Your task to perform on an android device: Open display settings Image 0: 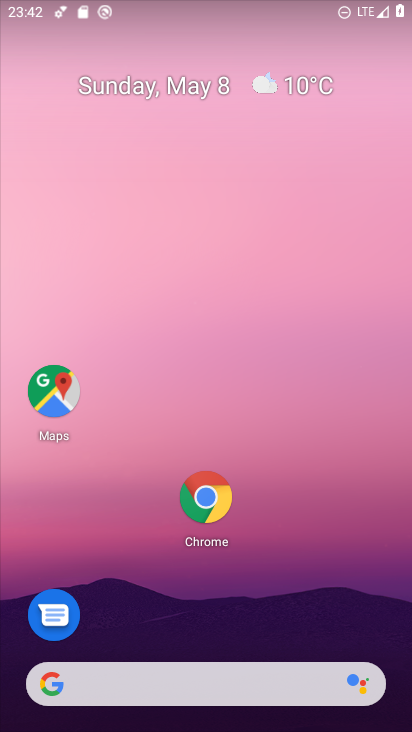
Step 0: click (281, 112)
Your task to perform on an android device: Open display settings Image 1: 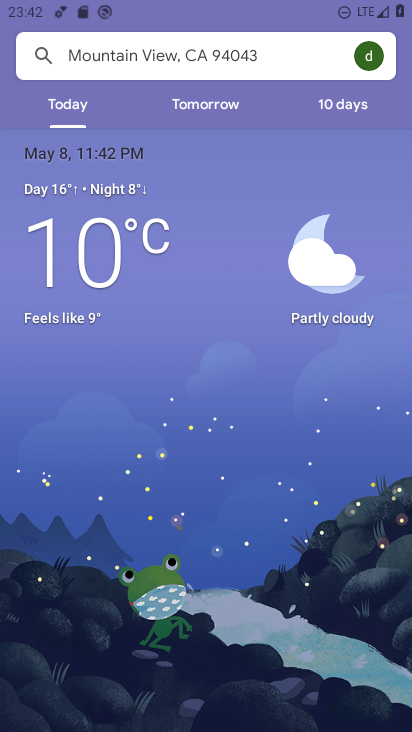
Step 1: press home button
Your task to perform on an android device: Open display settings Image 2: 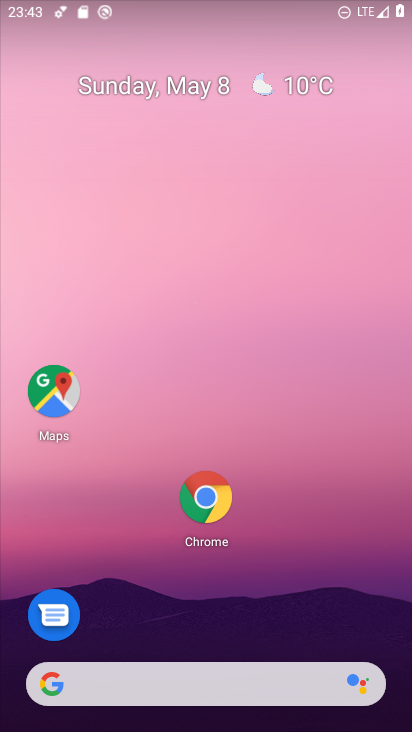
Step 2: drag from (279, 36) to (266, 0)
Your task to perform on an android device: Open display settings Image 3: 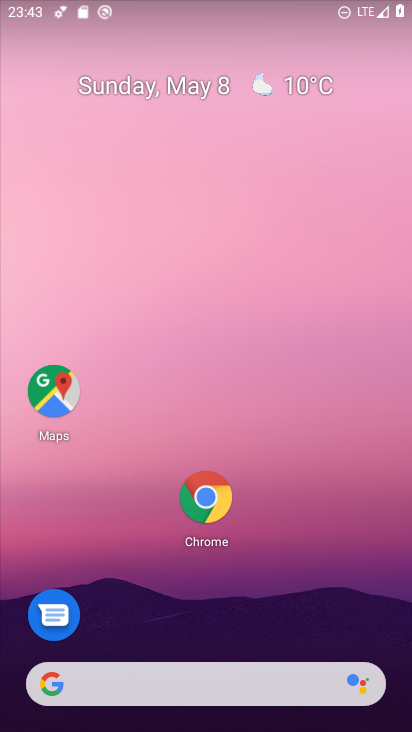
Step 3: drag from (303, 568) to (208, 25)
Your task to perform on an android device: Open display settings Image 4: 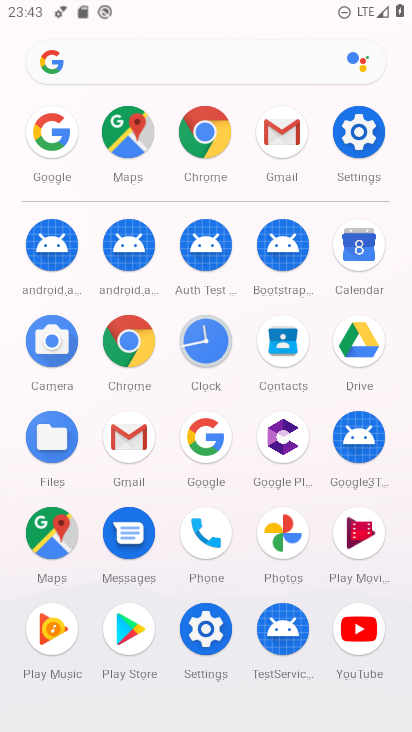
Step 4: click (363, 116)
Your task to perform on an android device: Open display settings Image 5: 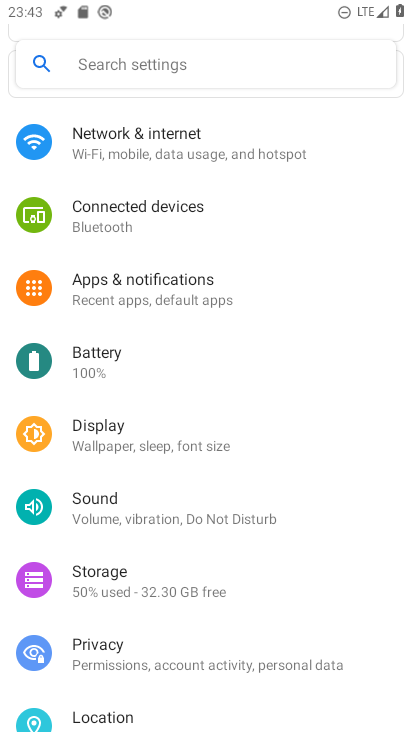
Step 5: click (154, 435)
Your task to perform on an android device: Open display settings Image 6: 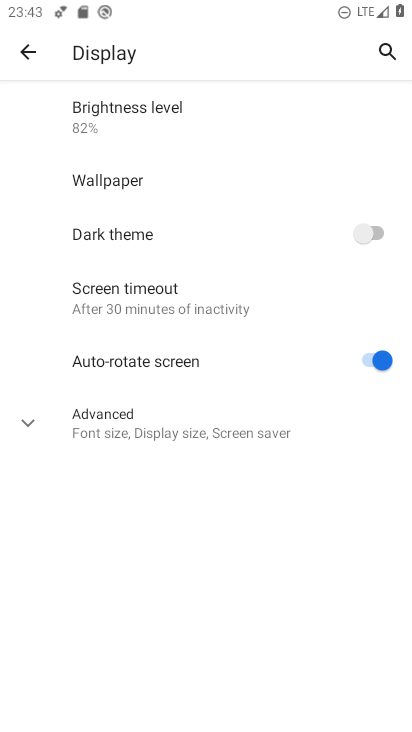
Step 6: task complete